Your task to perform on an android device: Search for pizza restaurants on Maps Image 0: 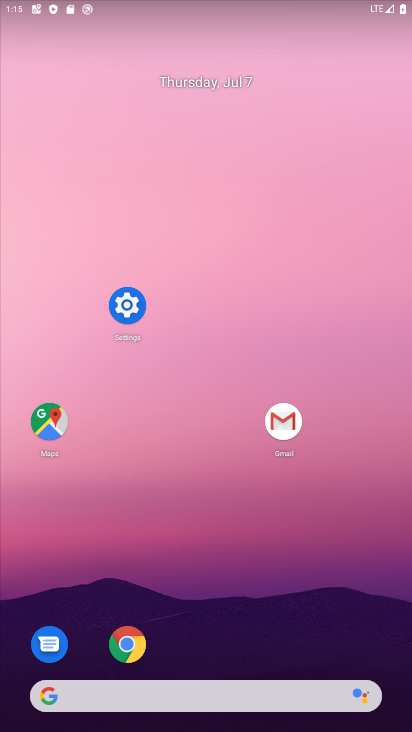
Step 0: click (55, 425)
Your task to perform on an android device: Search for pizza restaurants on Maps Image 1: 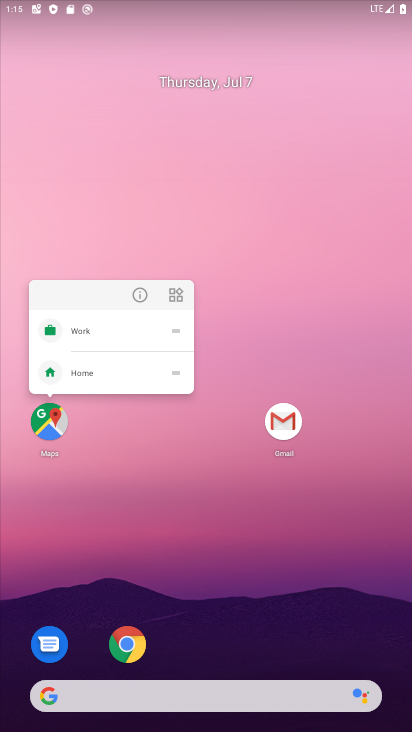
Step 1: click (53, 416)
Your task to perform on an android device: Search for pizza restaurants on Maps Image 2: 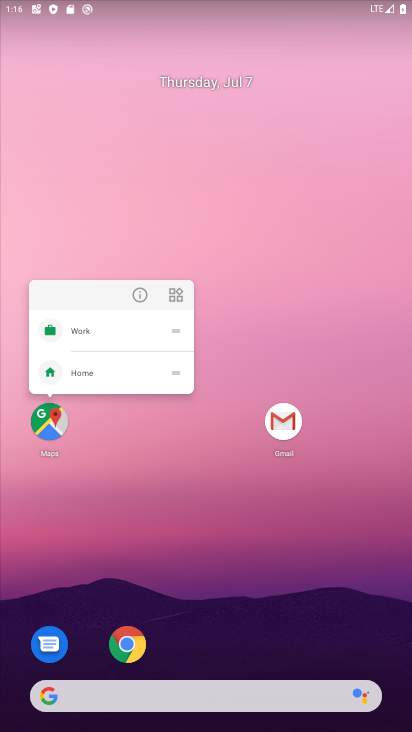
Step 2: click (31, 421)
Your task to perform on an android device: Search for pizza restaurants on Maps Image 3: 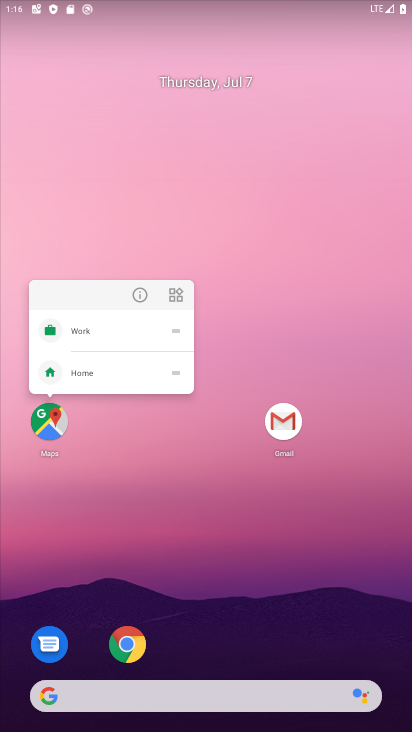
Step 3: click (50, 419)
Your task to perform on an android device: Search for pizza restaurants on Maps Image 4: 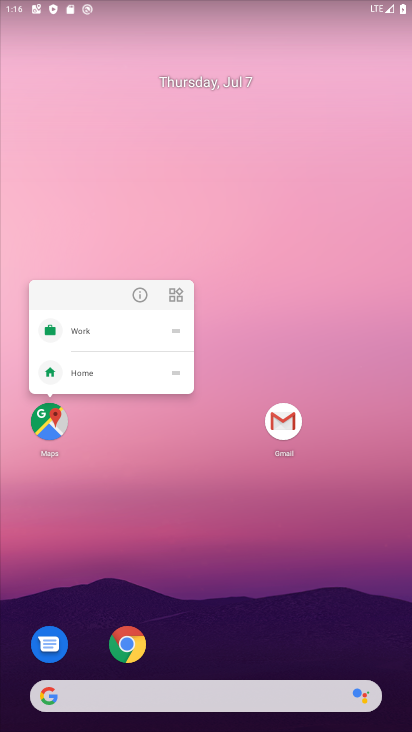
Step 4: click (54, 414)
Your task to perform on an android device: Search for pizza restaurants on Maps Image 5: 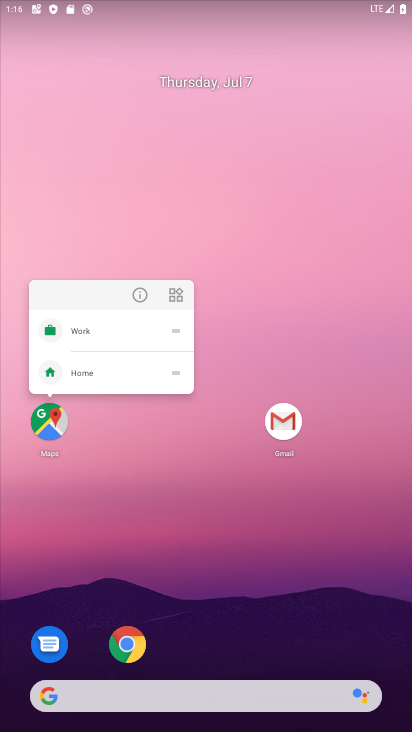
Step 5: click (53, 413)
Your task to perform on an android device: Search for pizza restaurants on Maps Image 6: 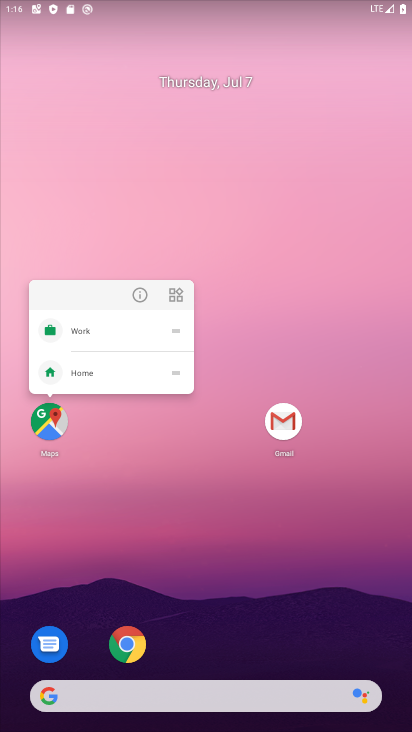
Step 6: click (49, 430)
Your task to perform on an android device: Search for pizza restaurants on Maps Image 7: 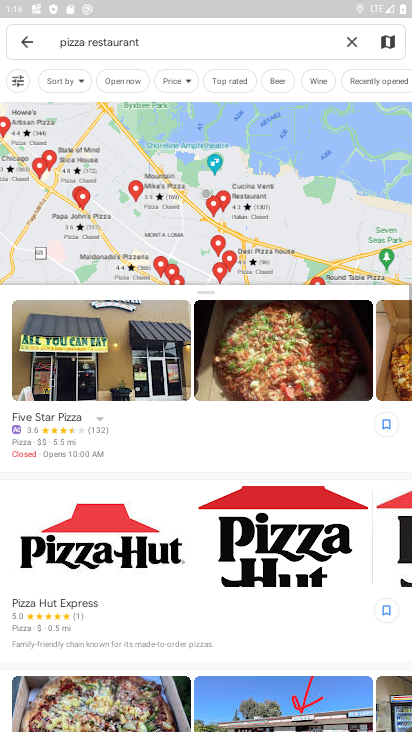
Step 7: click (348, 46)
Your task to perform on an android device: Search for pizza restaurants on Maps Image 8: 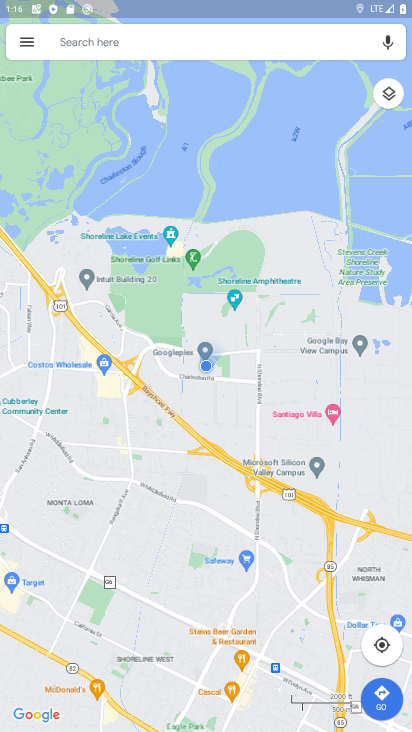
Step 8: click (93, 44)
Your task to perform on an android device: Search for pizza restaurants on Maps Image 9: 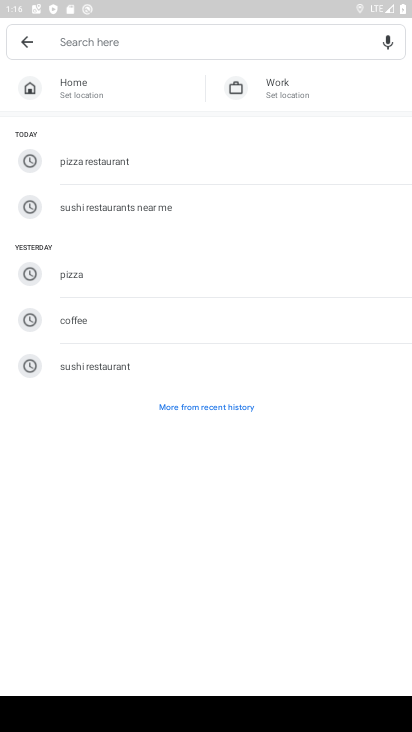
Step 9: type "pizza restaurants"
Your task to perform on an android device: Search for pizza restaurants on Maps Image 10: 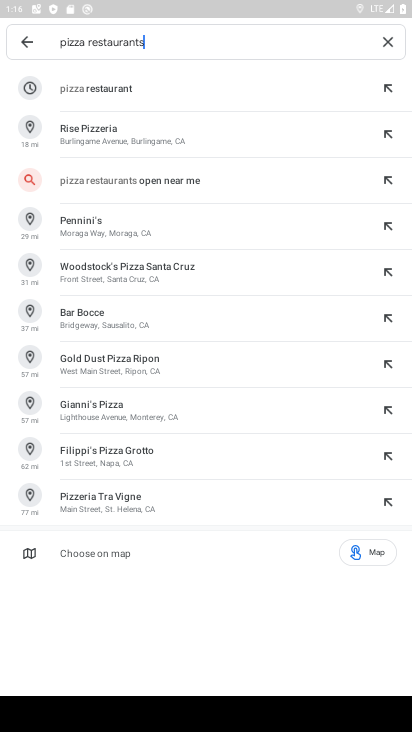
Step 10: click (45, 179)
Your task to perform on an android device: Search for pizza restaurants on Maps Image 11: 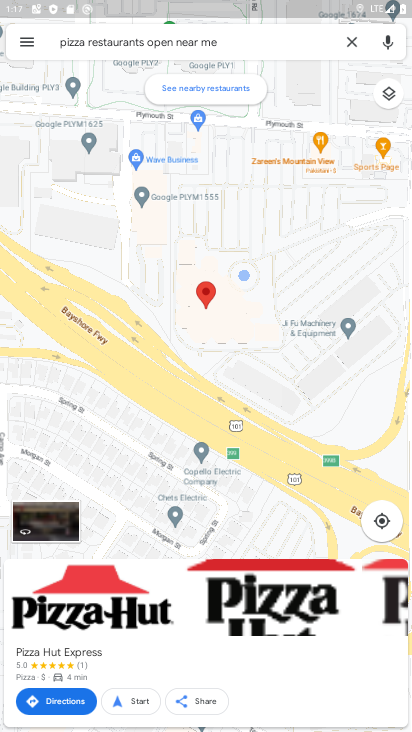
Step 11: task complete